Your task to perform on an android device: toggle improve location accuracy Image 0: 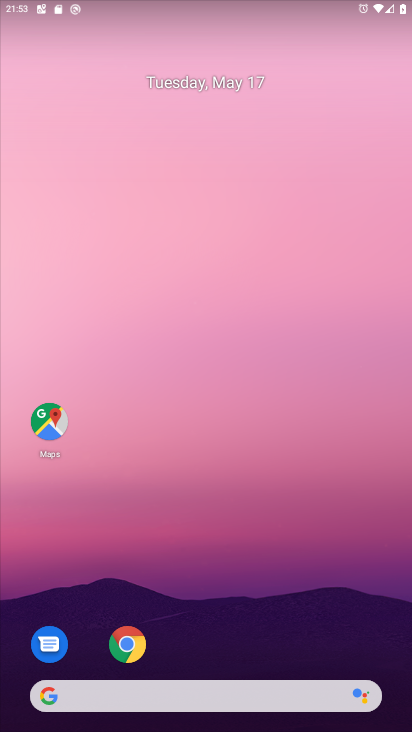
Step 0: drag from (195, 655) to (219, 97)
Your task to perform on an android device: toggle improve location accuracy Image 1: 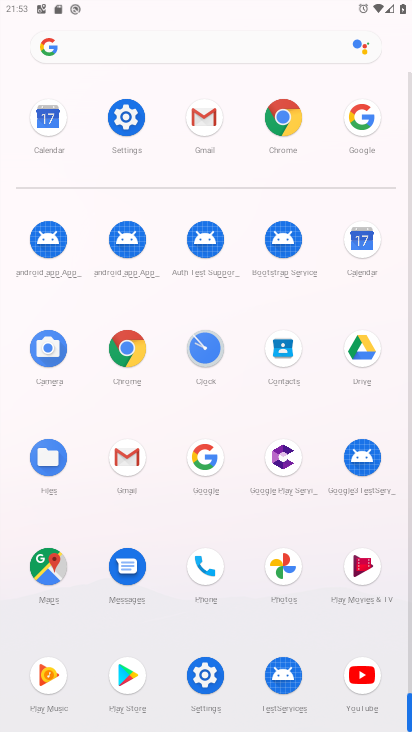
Step 1: click (126, 110)
Your task to perform on an android device: toggle improve location accuracy Image 2: 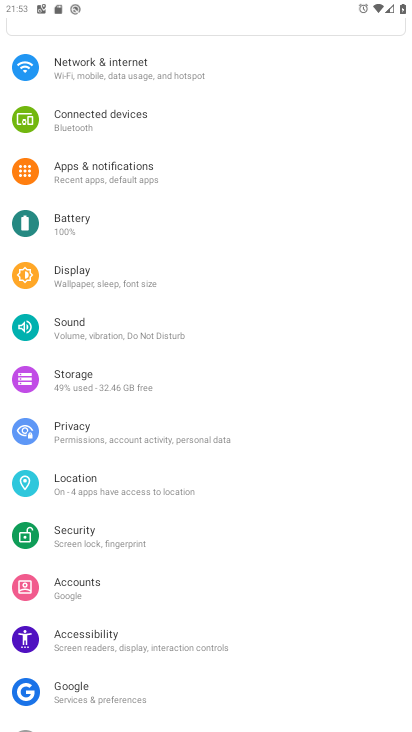
Step 2: click (102, 475)
Your task to perform on an android device: toggle improve location accuracy Image 3: 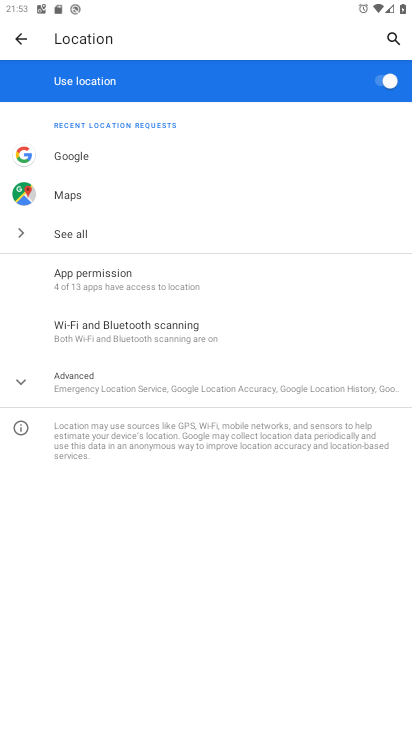
Step 3: click (77, 374)
Your task to perform on an android device: toggle improve location accuracy Image 4: 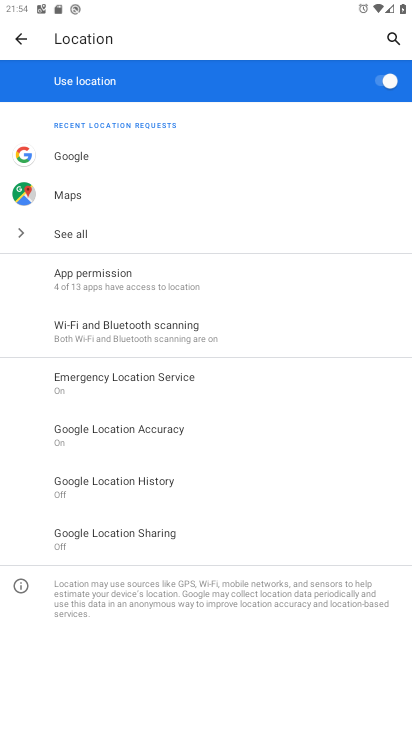
Step 4: click (158, 432)
Your task to perform on an android device: toggle improve location accuracy Image 5: 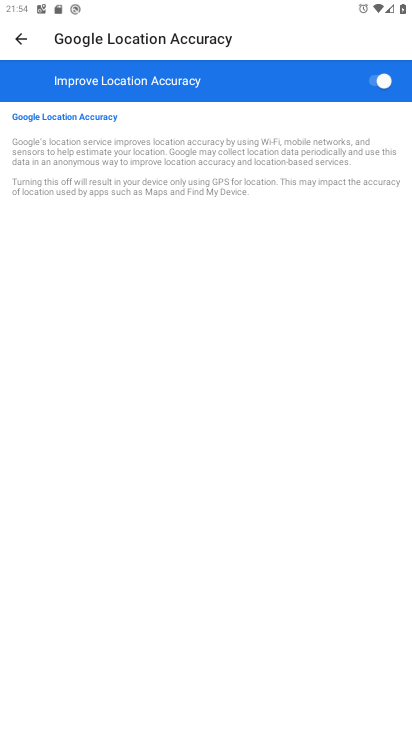
Step 5: click (380, 81)
Your task to perform on an android device: toggle improve location accuracy Image 6: 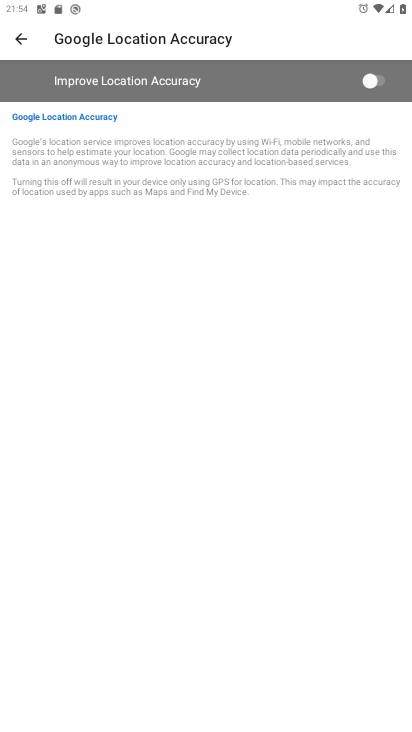
Step 6: task complete